Your task to perform on an android device: Go to Android settings Image 0: 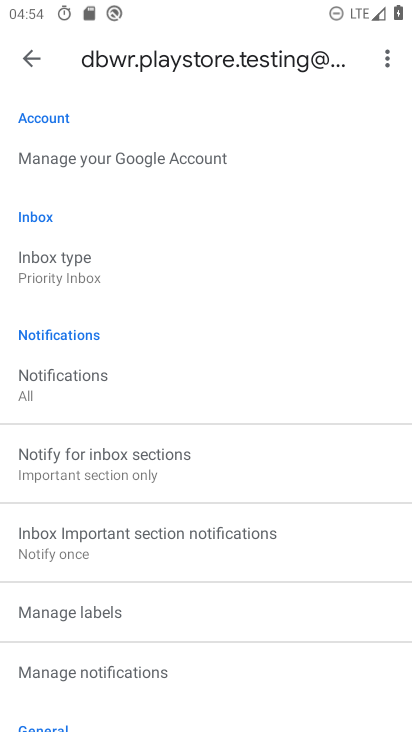
Step 0: press back button
Your task to perform on an android device: Go to Android settings Image 1: 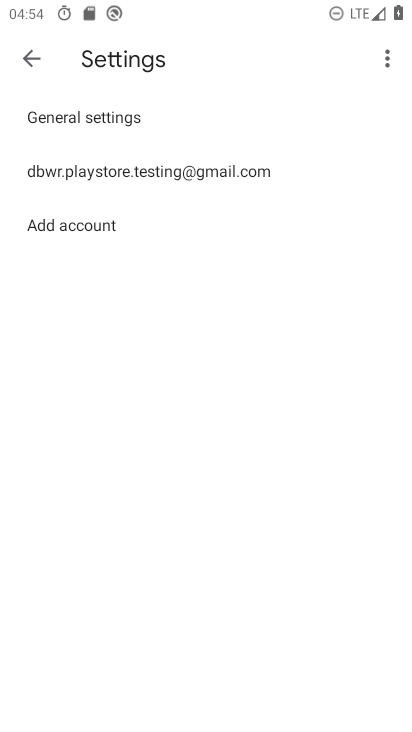
Step 1: press back button
Your task to perform on an android device: Go to Android settings Image 2: 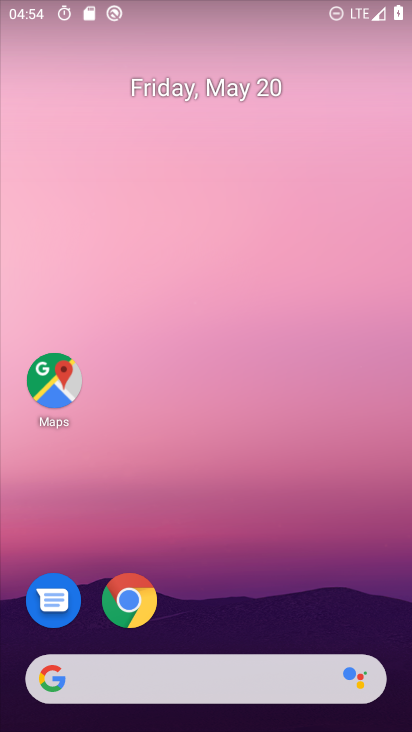
Step 2: drag from (162, 606) to (310, 105)
Your task to perform on an android device: Go to Android settings Image 3: 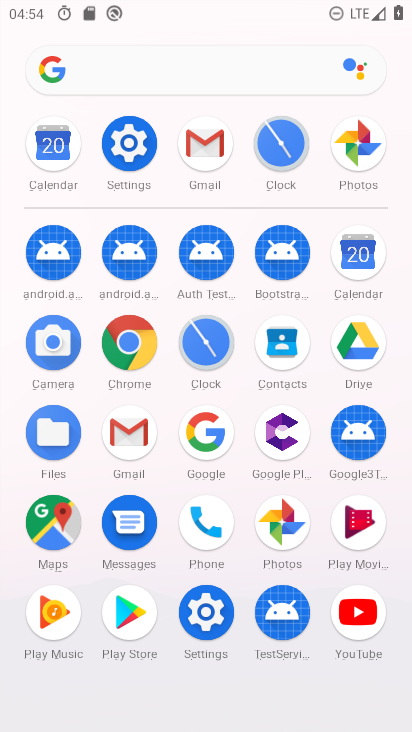
Step 3: click (127, 141)
Your task to perform on an android device: Go to Android settings Image 4: 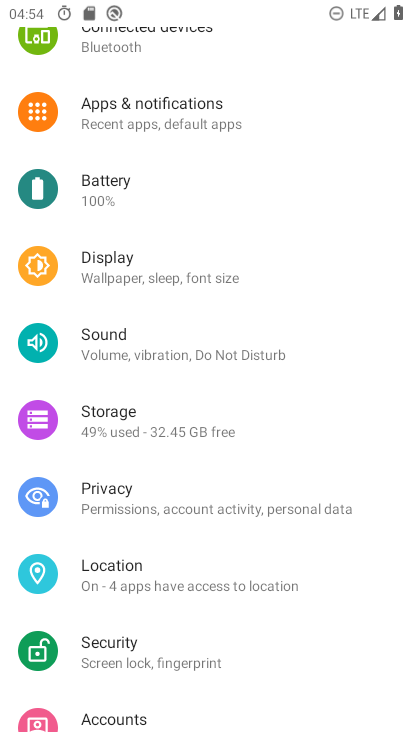
Step 4: drag from (171, 640) to (311, 6)
Your task to perform on an android device: Go to Android settings Image 5: 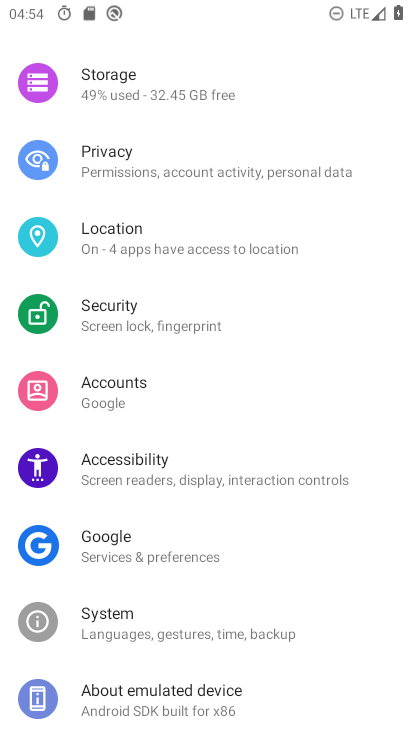
Step 5: click (176, 700)
Your task to perform on an android device: Go to Android settings Image 6: 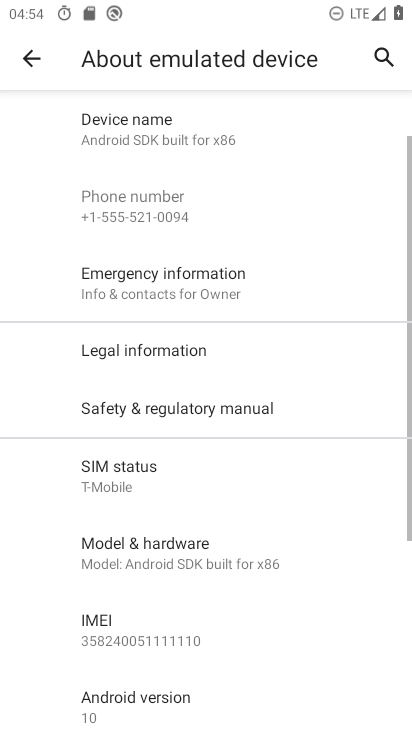
Step 6: click (168, 700)
Your task to perform on an android device: Go to Android settings Image 7: 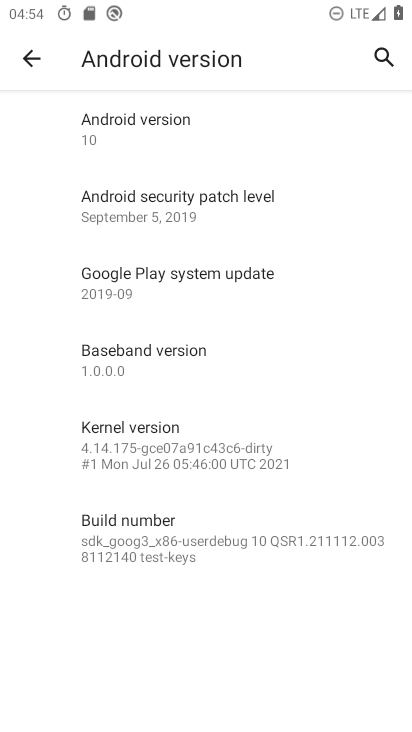
Step 7: task complete